Your task to perform on an android device: Open display settings Image 0: 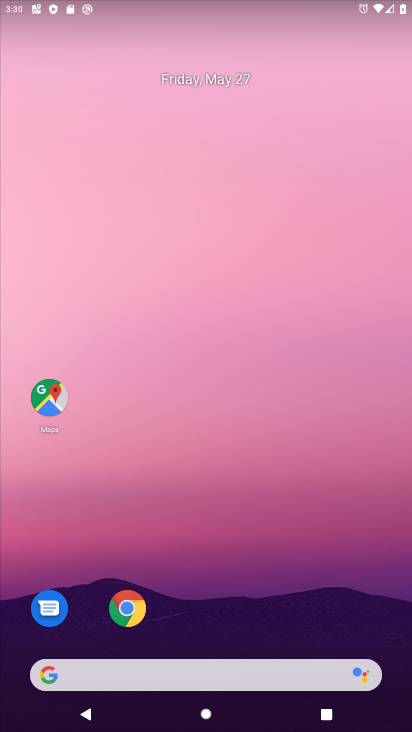
Step 0: drag from (210, 625) to (210, 240)
Your task to perform on an android device: Open display settings Image 1: 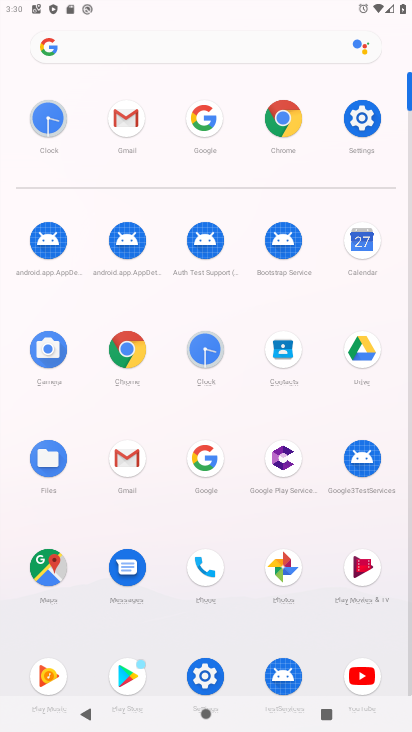
Step 1: click (364, 126)
Your task to perform on an android device: Open display settings Image 2: 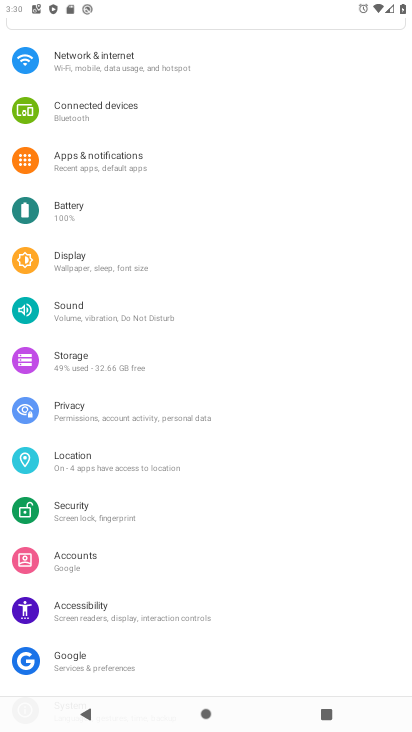
Step 2: click (89, 264)
Your task to perform on an android device: Open display settings Image 3: 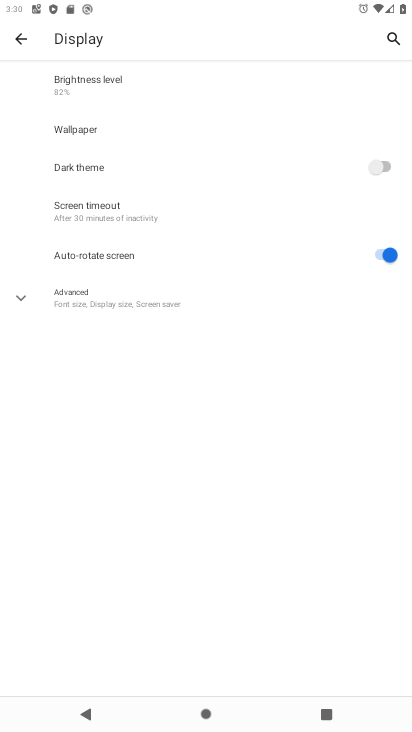
Step 3: click (136, 303)
Your task to perform on an android device: Open display settings Image 4: 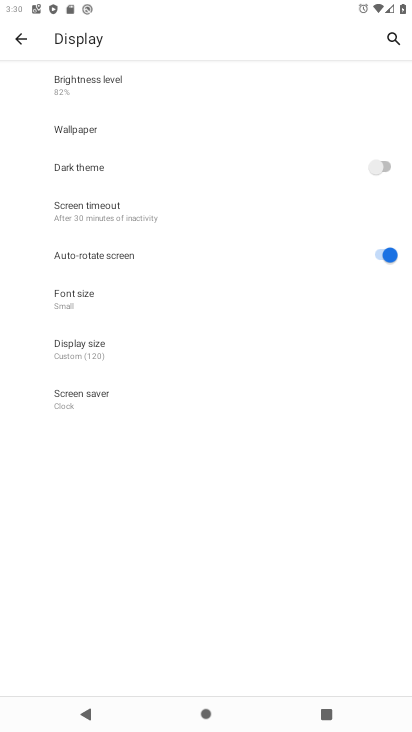
Step 4: task complete